Your task to perform on an android device: Open the map Image 0: 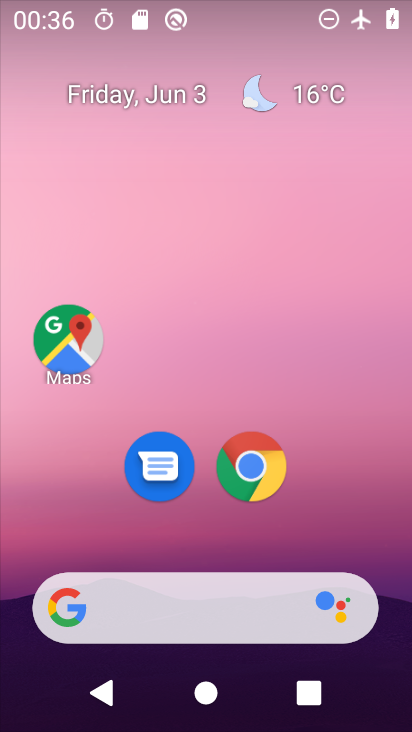
Step 0: click (40, 352)
Your task to perform on an android device: Open the map Image 1: 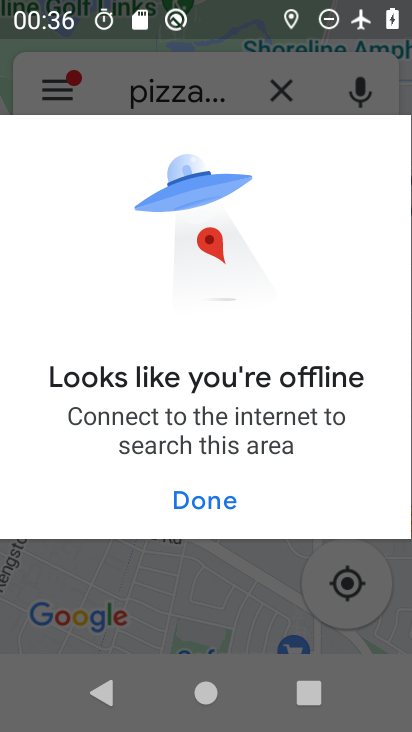
Step 1: task complete